Your task to perform on an android device: Open notification settings Image 0: 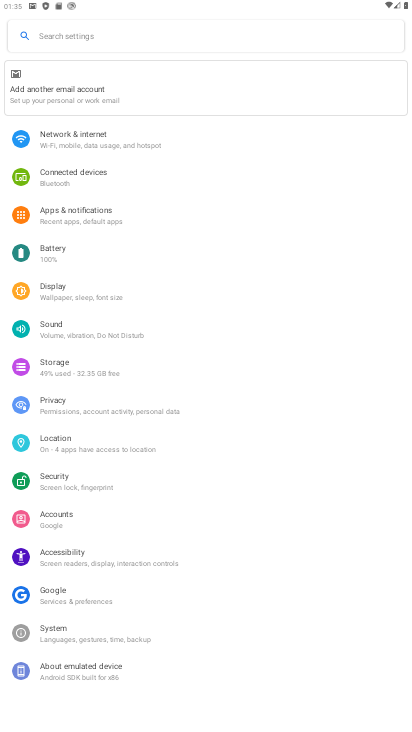
Step 0: click (66, 215)
Your task to perform on an android device: Open notification settings Image 1: 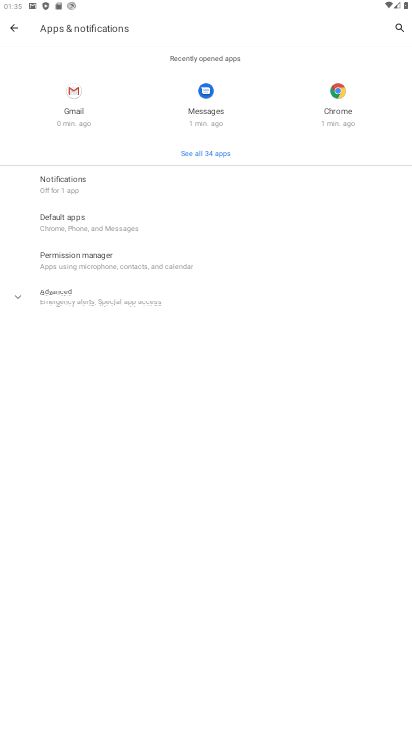
Step 1: click (55, 179)
Your task to perform on an android device: Open notification settings Image 2: 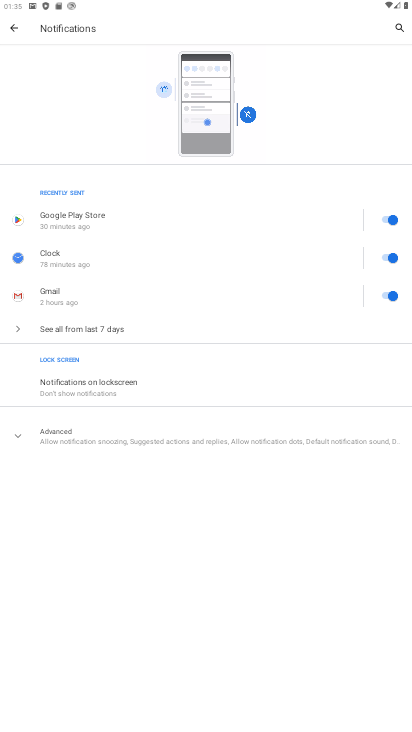
Step 2: task complete